Your task to perform on an android device: turn off javascript in the chrome app Image 0: 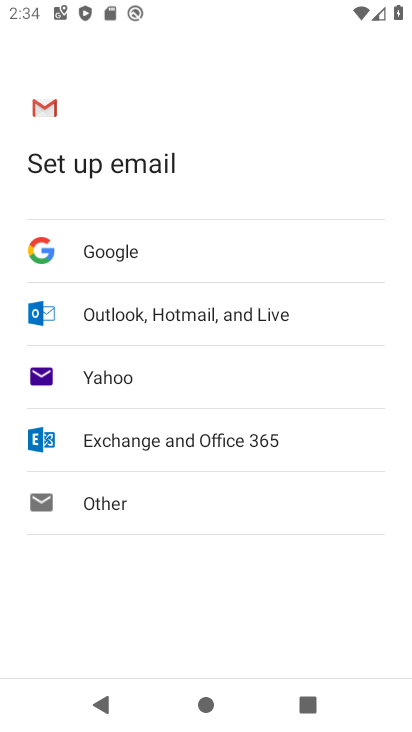
Step 0: press back button
Your task to perform on an android device: turn off javascript in the chrome app Image 1: 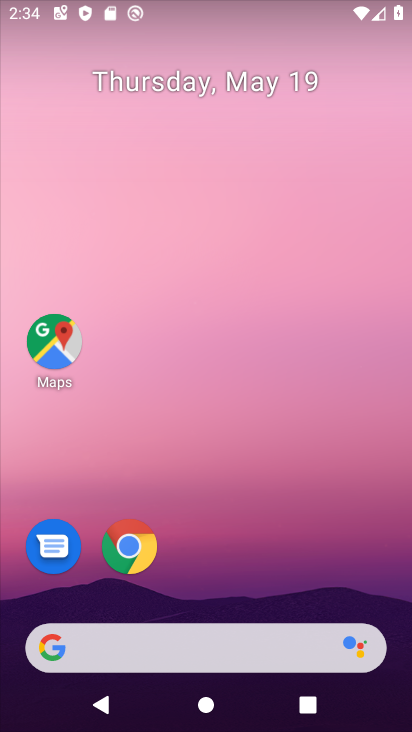
Step 1: click (126, 546)
Your task to perform on an android device: turn off javascript in the chrome app Image 2: 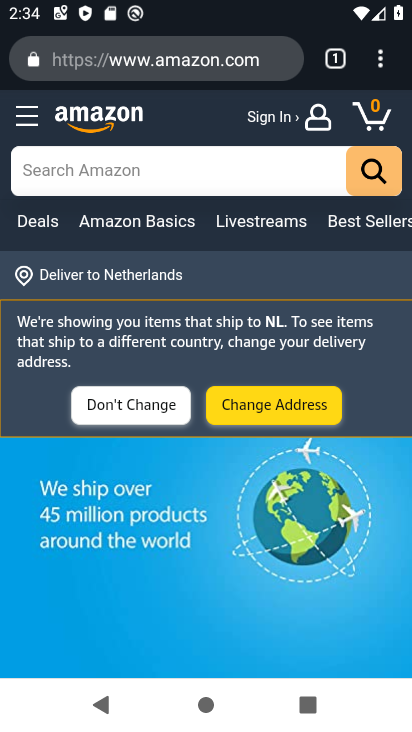
Step 2: click (382, 59)
Your task to perform on an android device: turn off javascript in the chrome app Image 3: 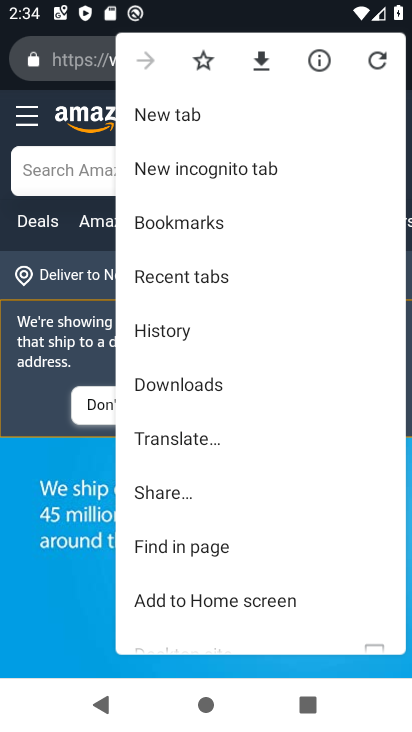
Step 3: drag from (203, 467) to (208, 377)
Your task to perform on an android device: turn off javascript in the chrome app Image 4: 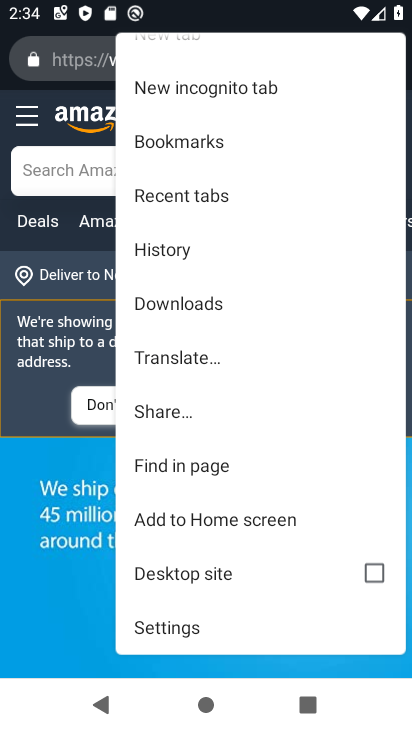
Step 4: drag from (173, 475) to (257, 372)
Your task to perform on an android device: turn off javascript in the chrome app Image 5: 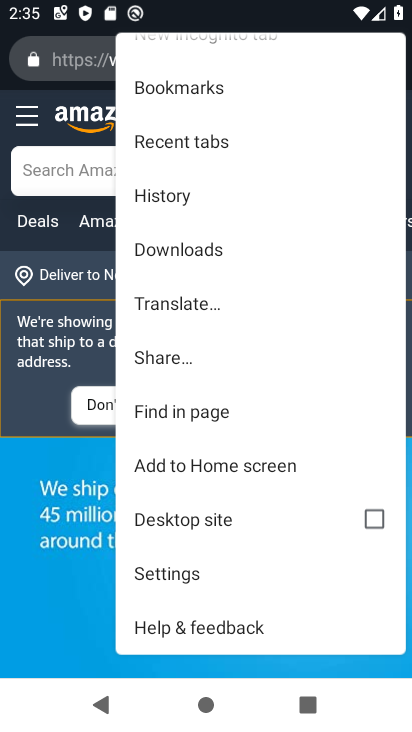
Step 5: click (178, 574)
Your task to perform on an android device: turn off javascript in the chrome app Image 6: 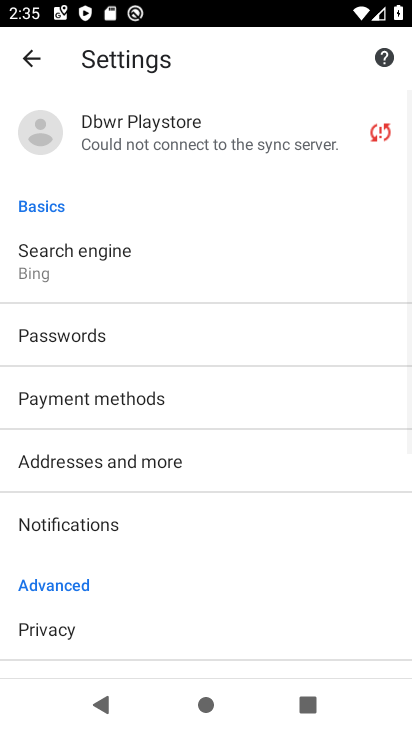
Step 6: drag from (172, 492) to (222, 397)
Your task to perform on an android device: turn off javascript in the chrome app Image 7: 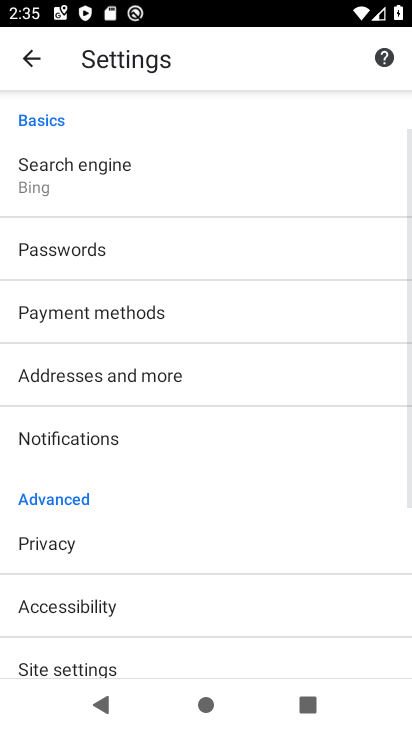
Step 7: drag from (170, 517) to (237, 413)
Your task to perform on an android device: turn off javascript in the chrome app Image 8: 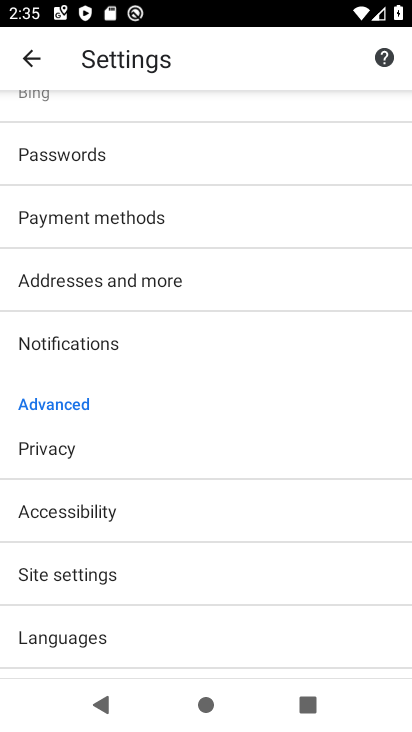
Step 8: drag from (165, 495) to (221, 416)
Your task to perform on an android device: turn off javascript in the chrome app Image 9: 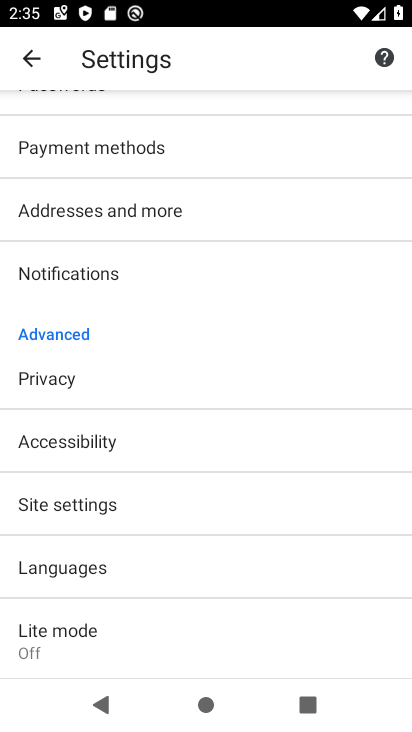
Step 9: click (99, 501)
Your task to perform on an android device: turn off javascript in the chrome app Image 10: 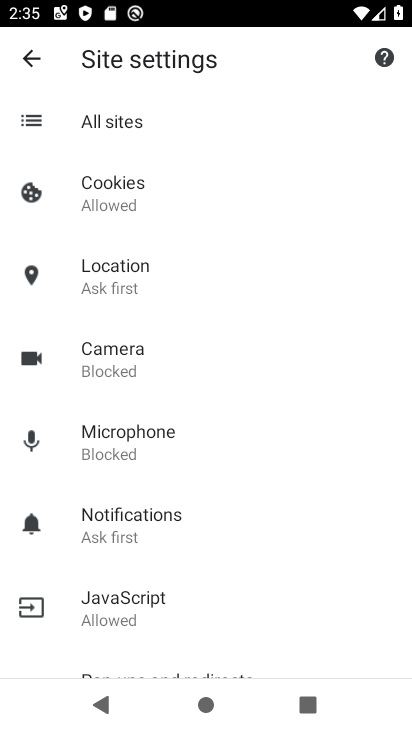
Step 10: drag from (158, 466) to (186, 389)
Your task to perform on an android device: turn off javascript in the chrome app Image 11: 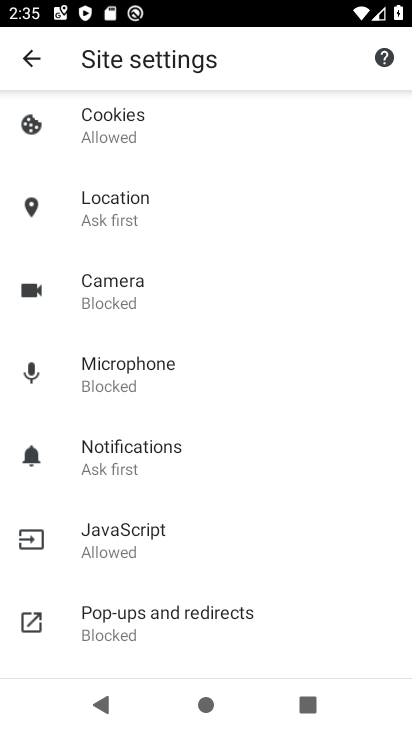
Step 11: click (144, 525)
Your task to perform on an android device: turn off javascript in the chrome app Image 12: 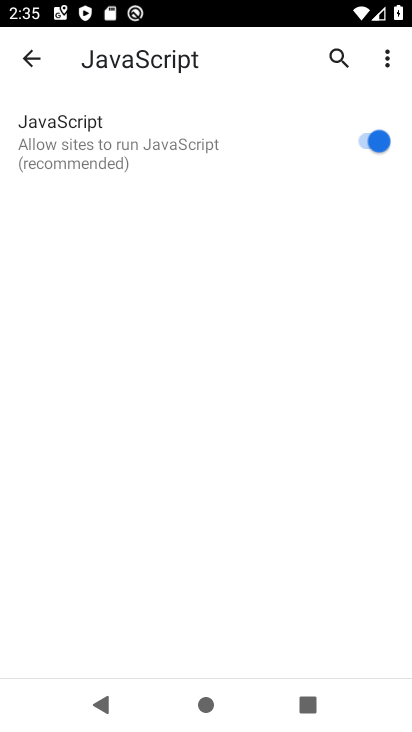
Step 12: click (376, 145)
Your task to perform on an android device: turn off javascript in the chrome app Image 13: 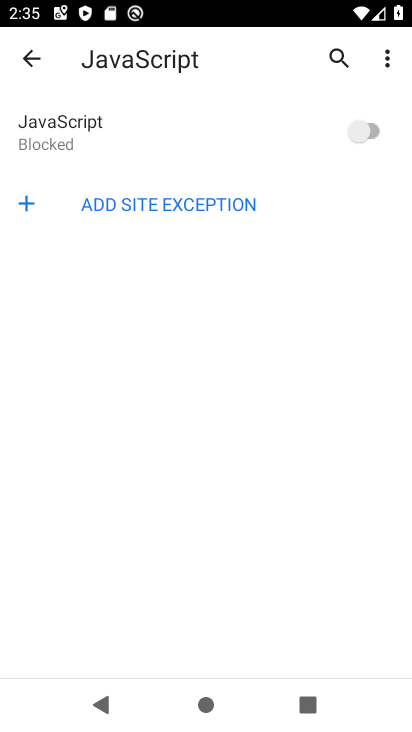
Step 13: task complete